Your task to perform on an android device: open the mobile data screen to see how much data has been used Image 0: 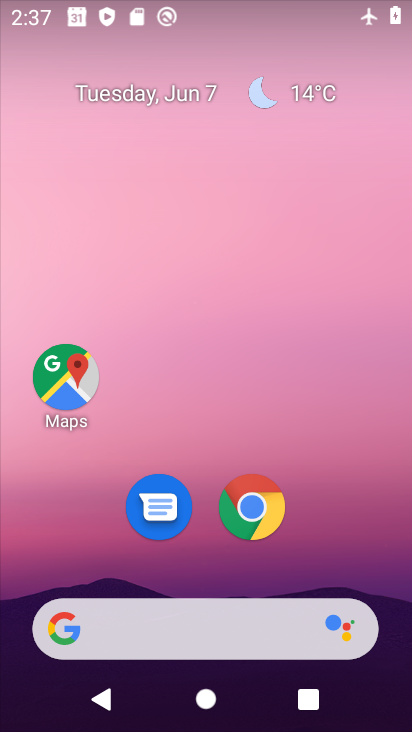
Step 0: drag from (367, 482) to (357, 125)
Your task to perform on an android device: open the mobile data screen to see how much data has been used Image 1: 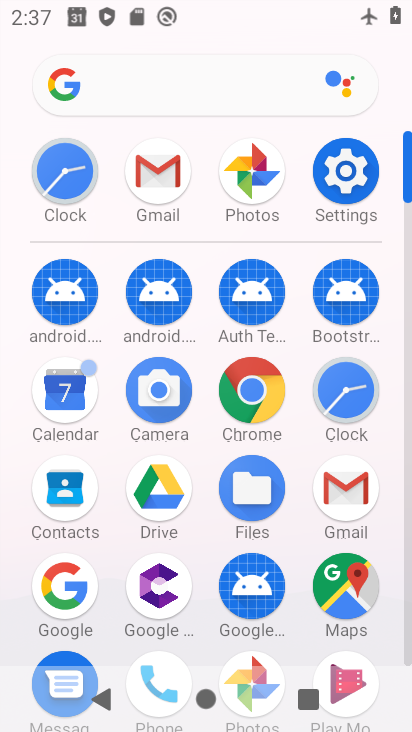
Step 1: click (349, 182)
Your task to perform on an android device: open the mobile data screen to see how much data has been used Image 2: 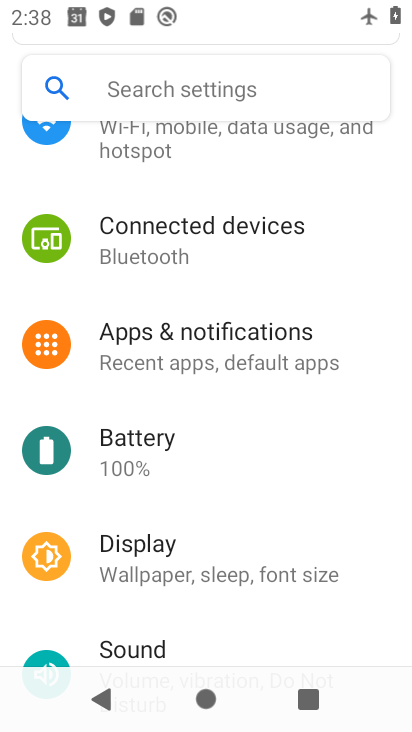
Step 2: drag from (204, 178) to (180, 536)
Your task to perform on an android device: open the mobile data screen to see how much data has been used Image 3: 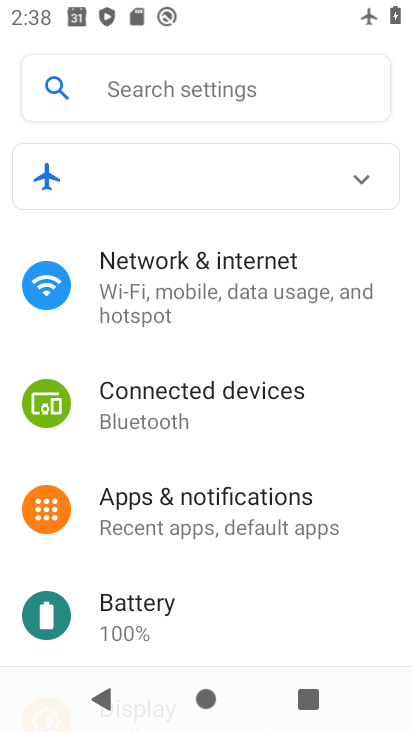
Step 3: click (206, 316)
Your task to perform on an android device: open the mobile data screen to see how much data has been used Image 4: 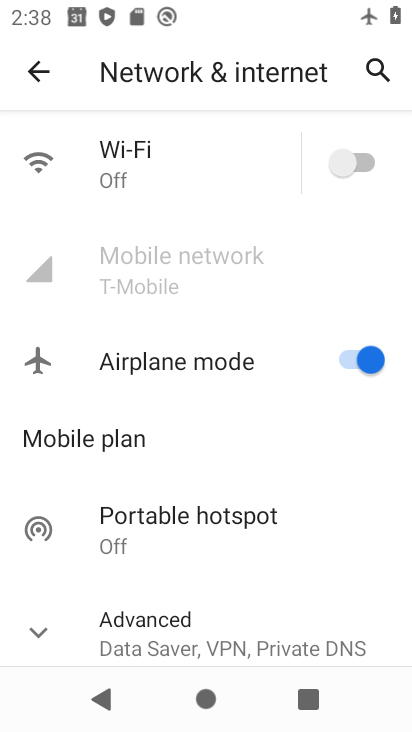
Step 4: click (206, 257)
Your task to perform on an android device: open the mobile data screen to see how much data has been used Image 5: 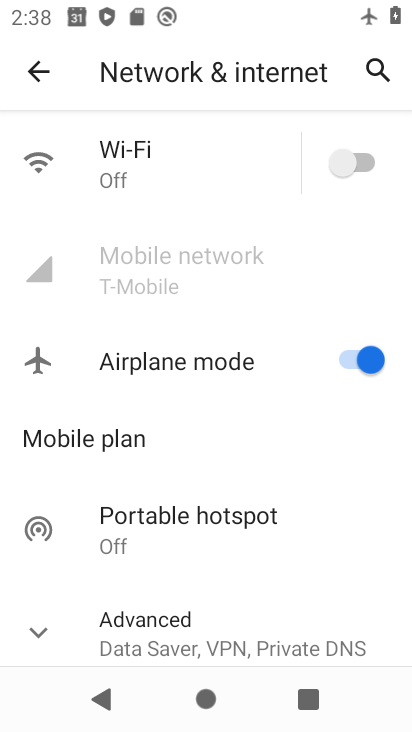
Step 5: click (380, 362)
Your task to perform on an android device: open the mobile data screen to see how much data has been used Image 6: 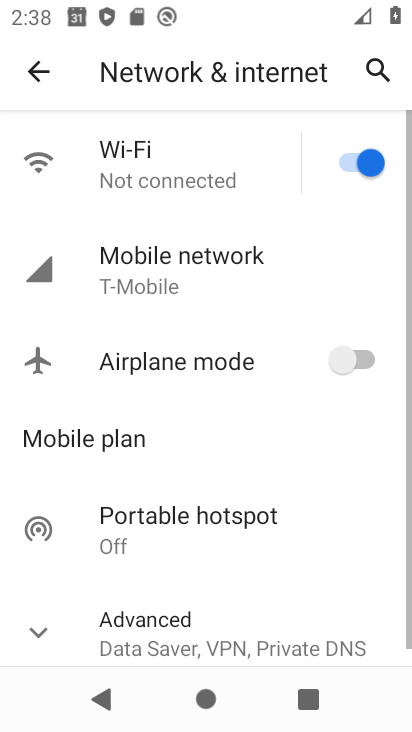
Step 6: click (164, 278)
Your task to perform on an android device: open the mobile data screen to see how much data has been used Image 7: 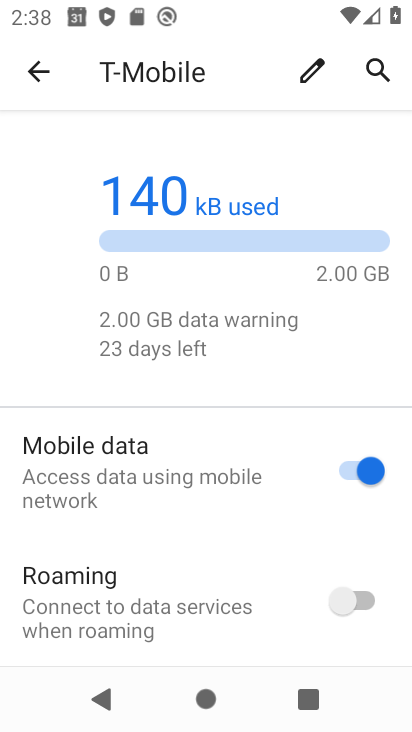
Step 7: task complete